Your task to perform on an android device: check out phone information Image 0: 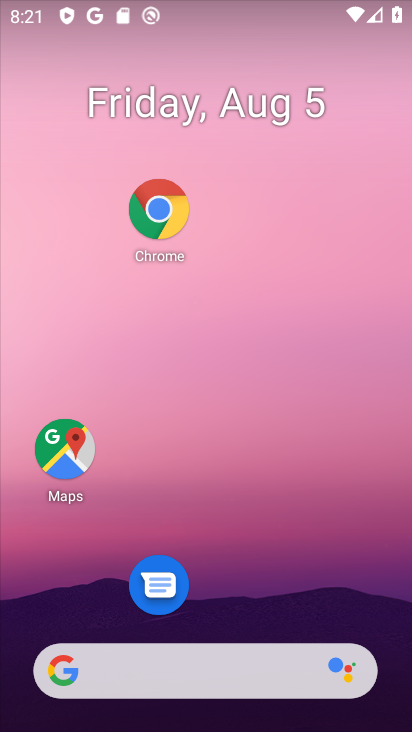
Step 0: drag from (226, 629) to (185, 99)
Your task to perform on an android device: check out phone information Image 1: 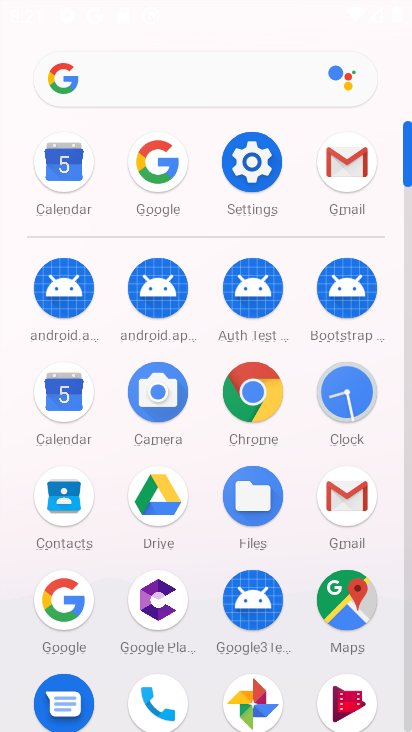
Step 1: click (233, 135)
Your task to perform on an android device: check out phone information Image 2: 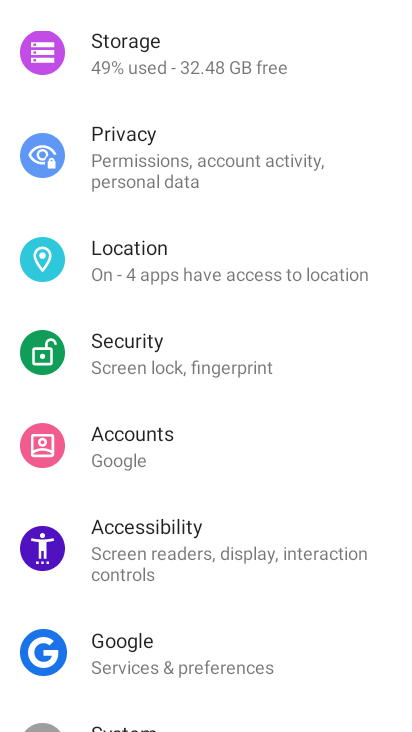
Step 2: task complete